Your task to perform on an android device: Open Reddit.com Image 0: 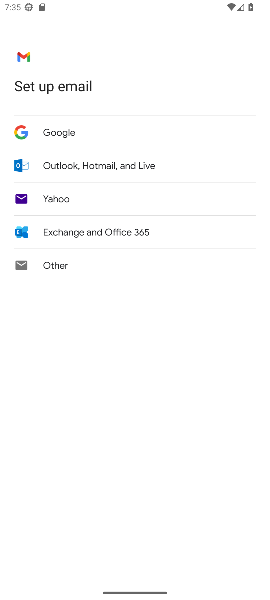
Step 0: press back button
Your task to perform on an android device: Open Reddit.com Image 1: 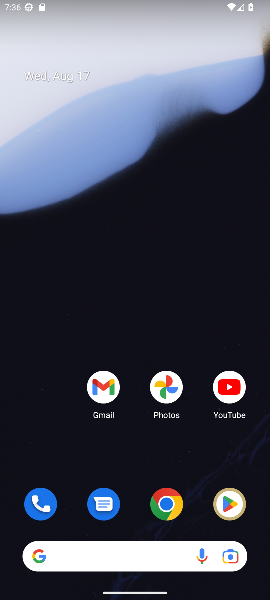
Step 1: drag from (142, 442) to (204, 183)
Your task to perform on an android device: Open Reddit.com Image 2: 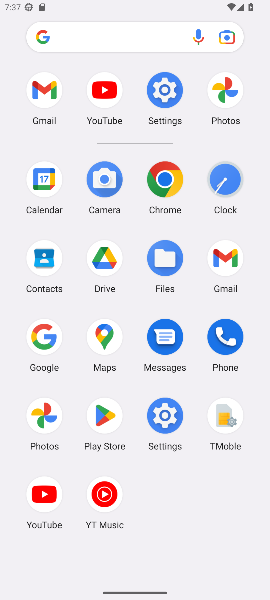
Step 2: click (161, 187)
Your task to perform on an android device: Open Reddit.com Image 3: 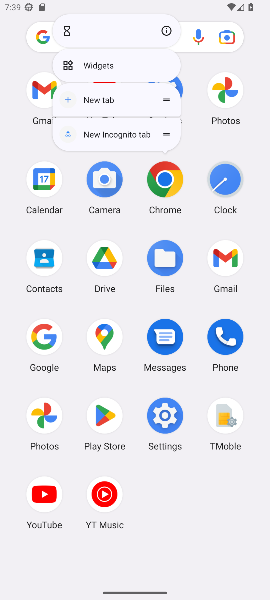
Step 3: click (165, 191)
Your task to perform on an android device: Open Reddit.com Image 4: 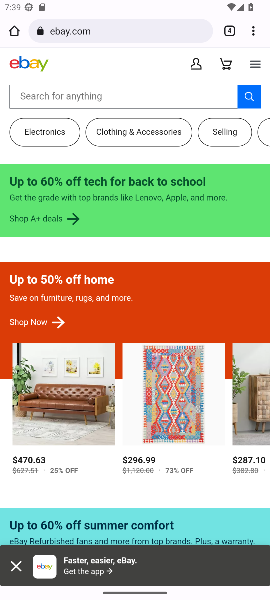
Step 4: click (233, 33)
Your task to perform on an android device: Open Reddit.com Image 5: 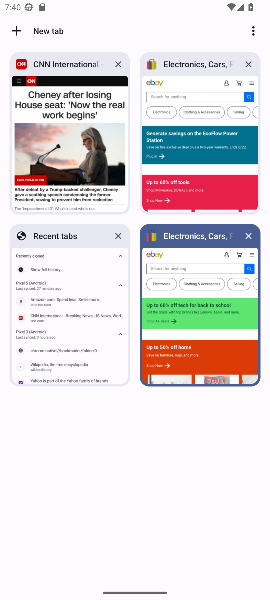
Step 5: click (57, 28)
Your task to perform on an android device: Open Reddit.com Image 6: 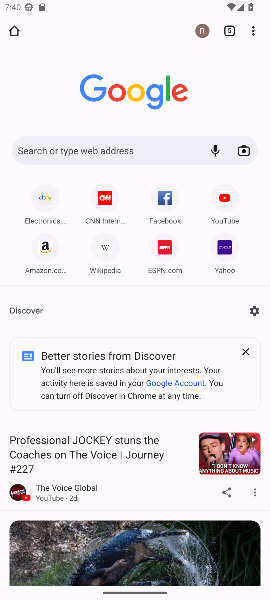
Step 6: click (131, 153)
Your task to perform on an android device: Open Reddit.com Image 7: 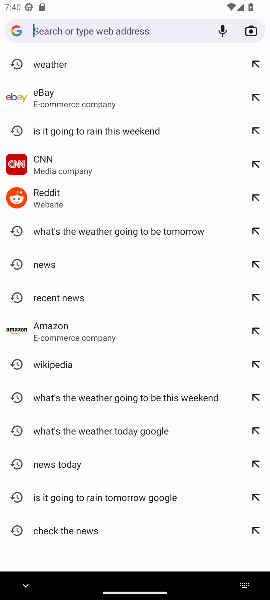
Step 7: type "Reddit.com"
Your task to perform on an android device: Open Reddit.com Image 8: 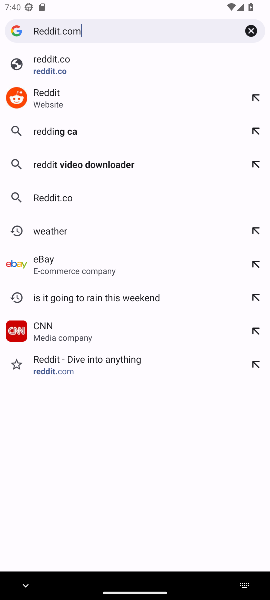
Step 8: type ""
Your task to perform on an android device: Open Reddit.com Image 9: 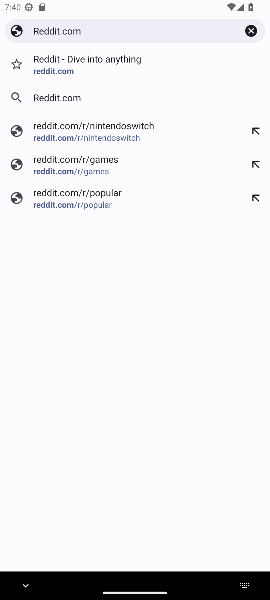
Step 9: click (138, 68)
Your task to perform on an android device: Open Reddit.com Image 10: 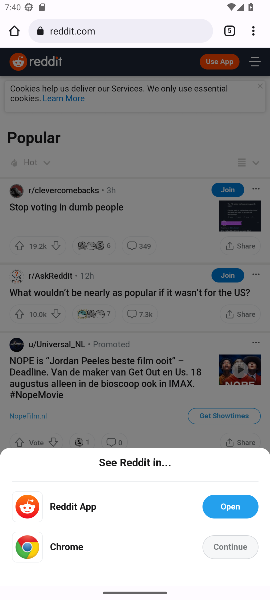
Step 10: click (186, 399)
Your task to perform on an android device: Open Reddit.com Image 11: 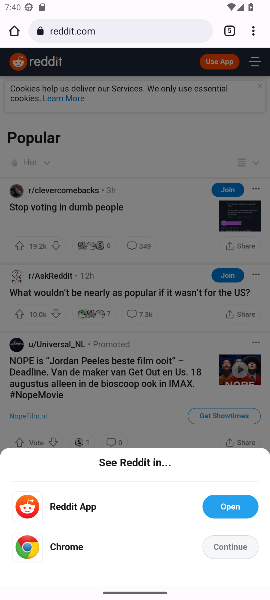
Step 11: task complete